Your task to perform on an android device: check the backup settings in the google photos Image 0: 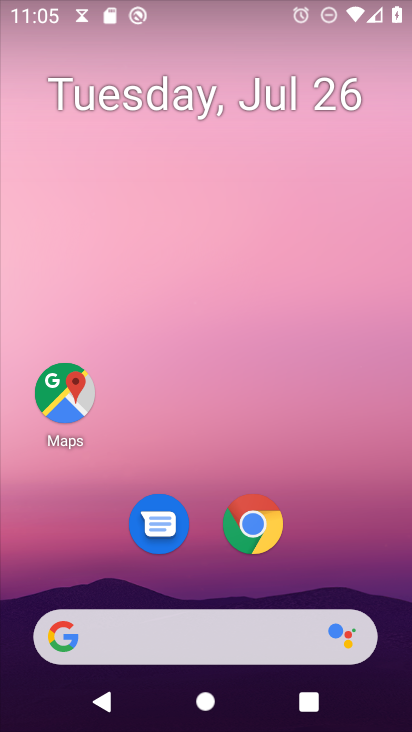
Step 0: drag from (185, 651) to (329, 140)
Your task to perform on an android device: check the backup settings in the google photos Image 1: 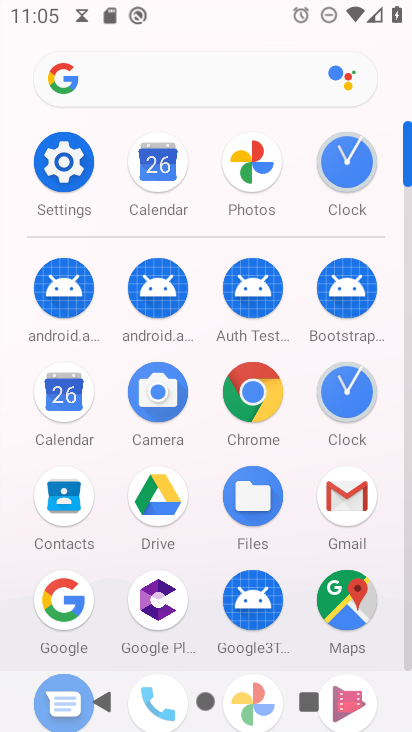
Step 1: drag from (208, 565) to (239, 189)
Your task to perform on an android device: check the backup settings in the google photos Image 2: 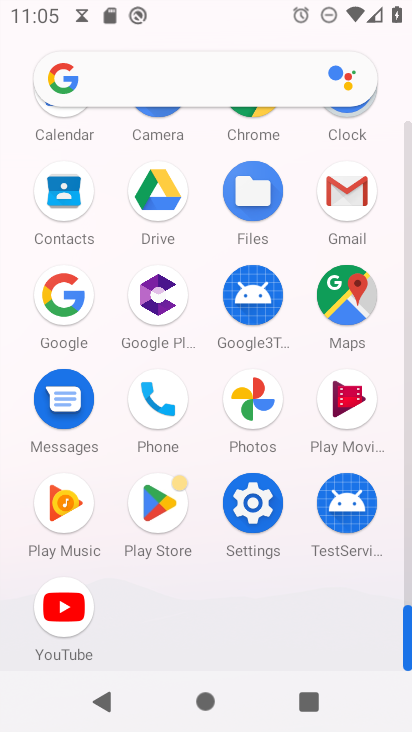
Step 2: click (253, 404)
Your task to perform on an android device: check the backup settings in the google photos Image 3: 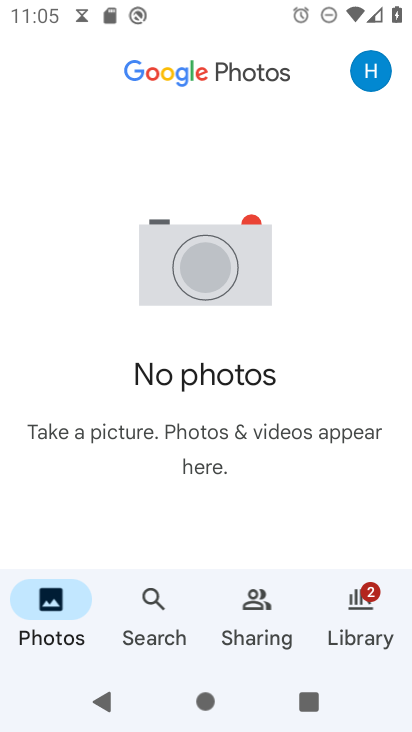
Step 3: click (373, 74)
Your task to perform on an android device: check the backup settings in the google photos Image 4: 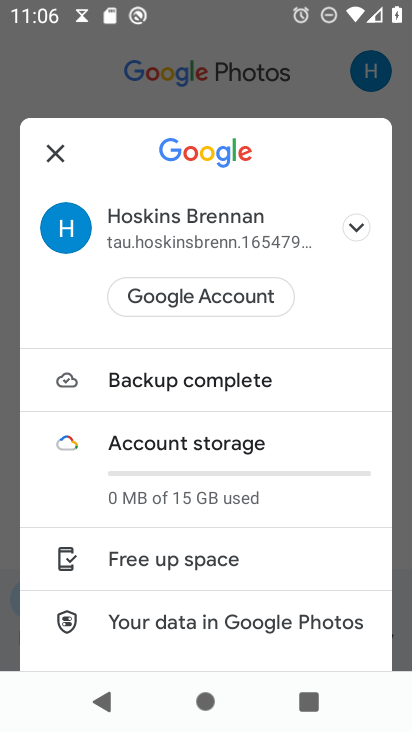
Step 4: drag from (215, 601) to (282, 223)
Your task to perform on an android device: check the backup settings in the google photos Image 5: 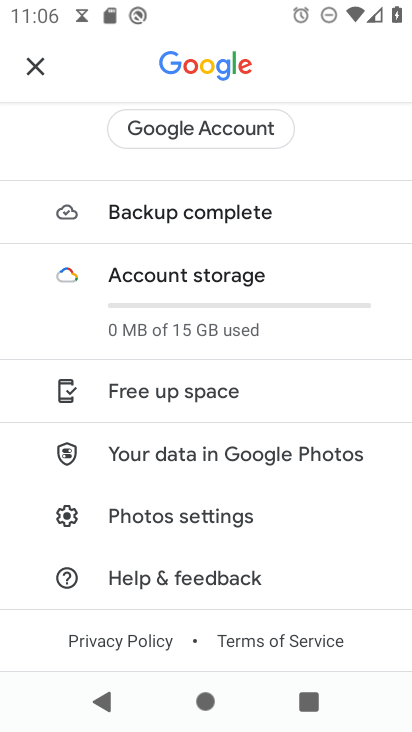
Step 5: click (179, 516)
Your task to perform on an android device: check the backup settings in the google photos Image 6: 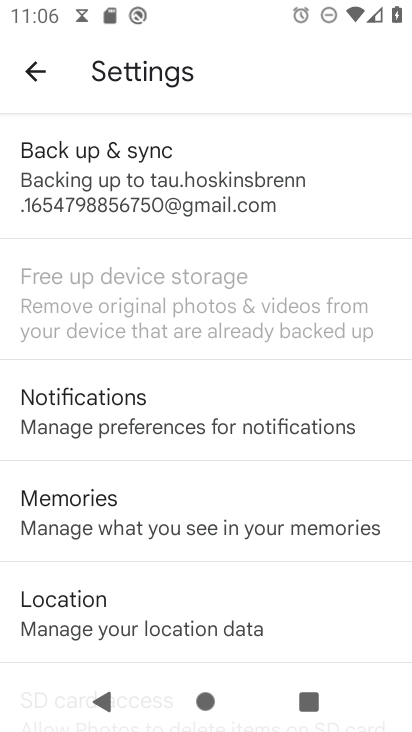
Step 6: click (176, 211)
Your task to perform on an android device: check the backup settings in the google photos Image 7: 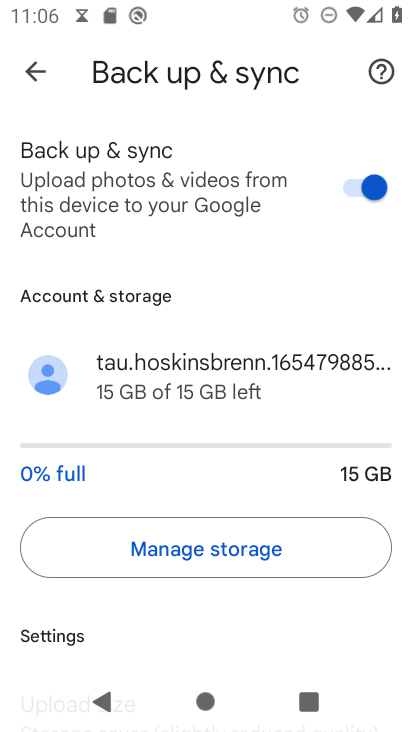
Step 7: task complete